Your task to perform on an android device: Toggle the flashlight Image 0: 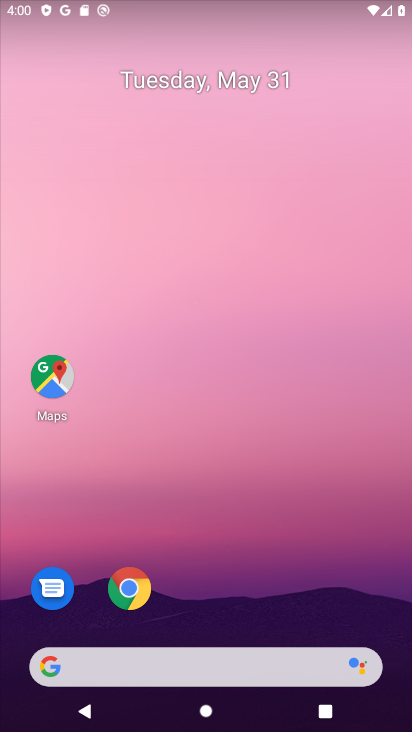
Step 0: drag from (206, 625) to (258, 277)
Your task to perform on an android device: Toggle the flashlight Image 1: 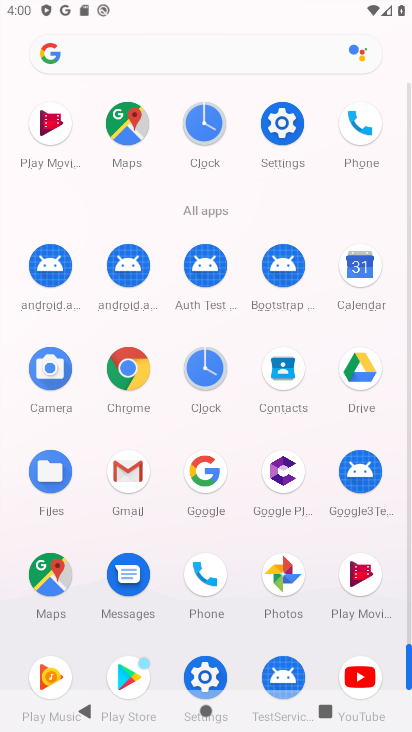
Step 1: click (284, 101)
Your task to perform on an android device: Toggle the flashlight Image 2: 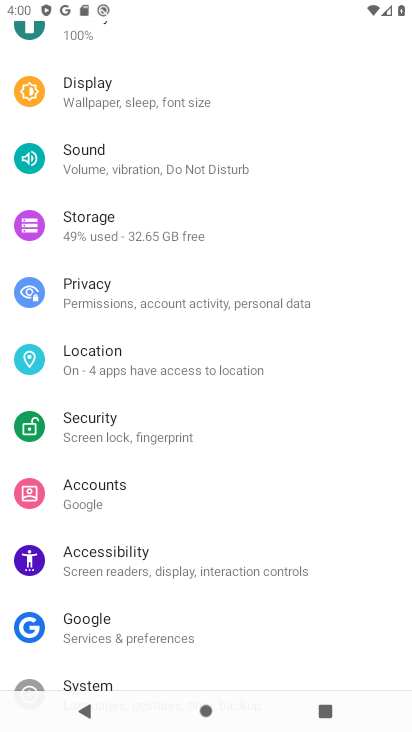
Step 2: task complete